Your task to perform on an android device: Open Youtube and go to "Your channel" Image 0: 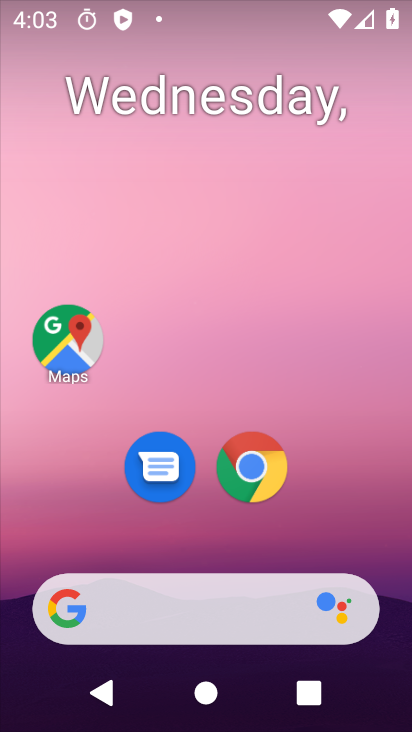
Step 0: drag from (385, 474) to (249, 5)
Your task to perform on an android device: Open Youtube and go to "Your channel" Image 1: 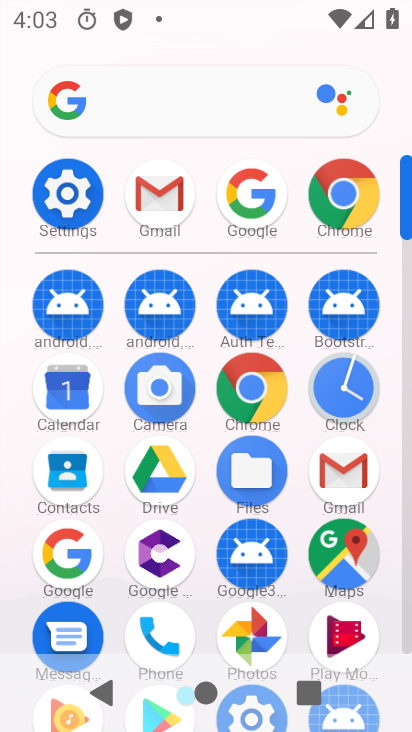
Step 1: drag from (283, 637) to (215, 204)
Your task to perform on an android device: Open Youtube and go to "Your channel" Image 2: 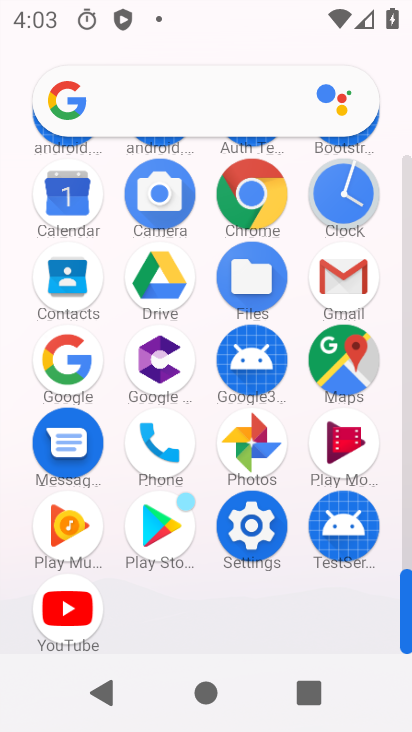
Step 2: click (70, 606)
Your task to perform on an android device: Open Youtube and go to "Your channel" Image 3: 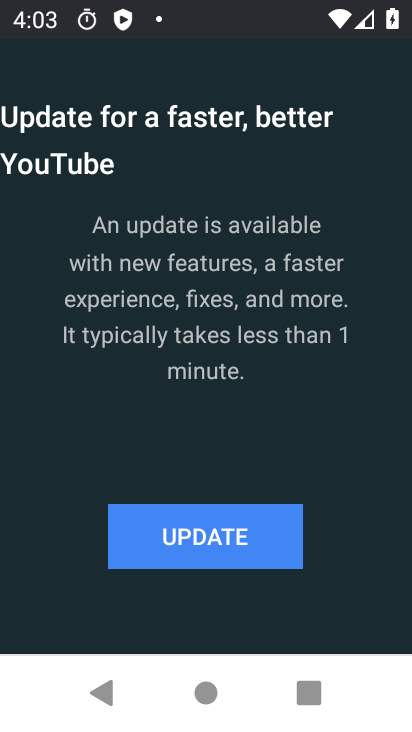
Step 3: click (262, 540)
Your task to perform on an android device: Open Youtube and go to "Your channel" Image 4: 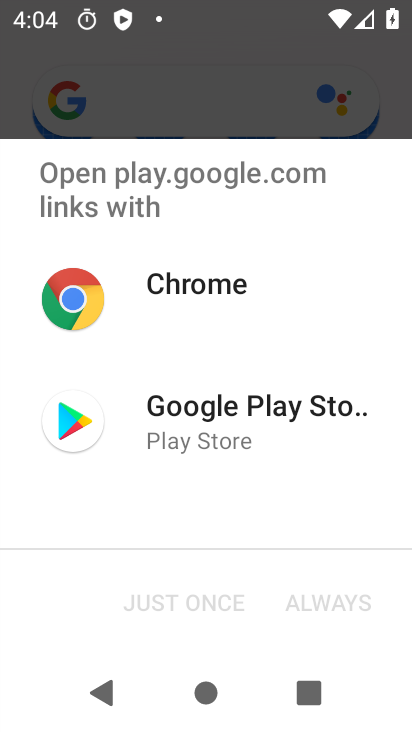
Step 4: click (147, 405)
Your task to perform on an android device: Open Youtube and go to "Your channel" Image 5: 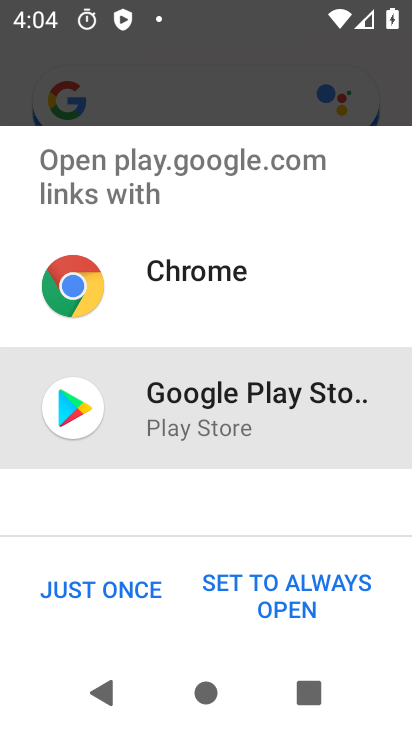
Step 5: click (89, 598)
Your task to perform on an android device: Open Youtube and go to "Your channel" Image 6: 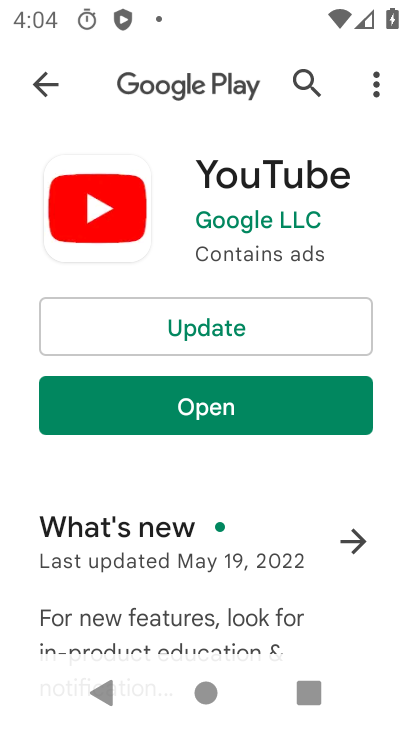
Step 6: click (284, 329)
Your task to perform on an android device: Open Youtube and go to "Your channel" Image 7: 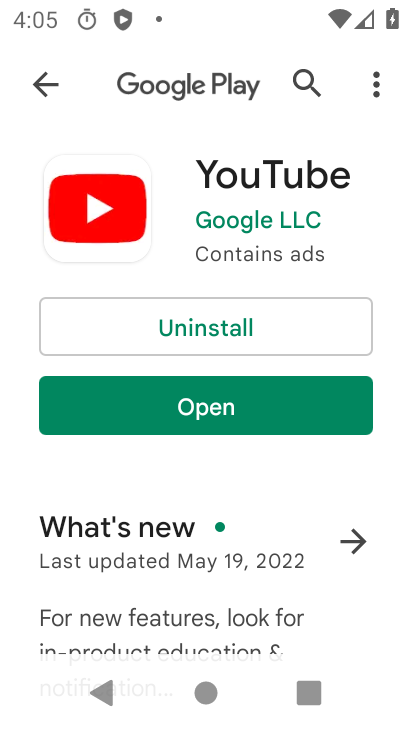
Step 7: click (206, 406)
Your task to perform on an android device: Open Youtube and go to "Your channel" Image 8: 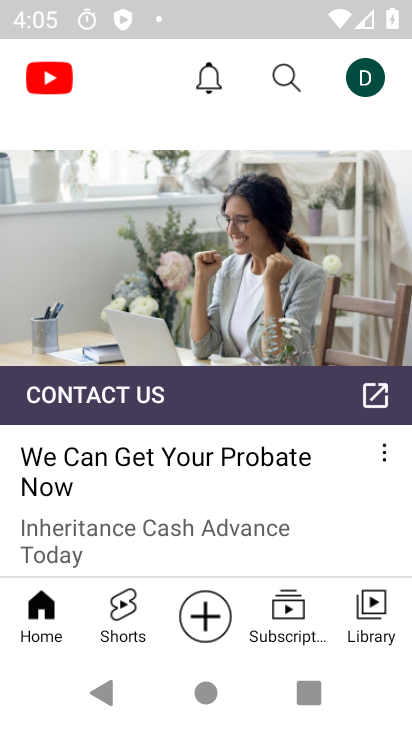
Step 8: click (358, 76)
Your task to perform on an android device: Open Youtube and go to "Your channel" Image 9: 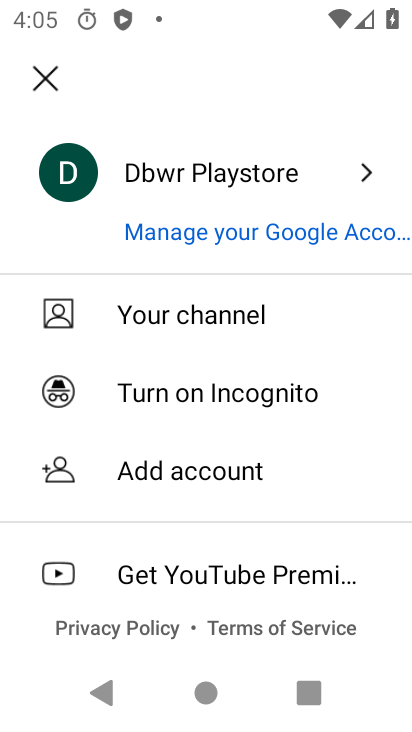
Step 9: click (185, 326)
Your task to perform on an android device: Open Youtube and go to "Your channel" Image 10: 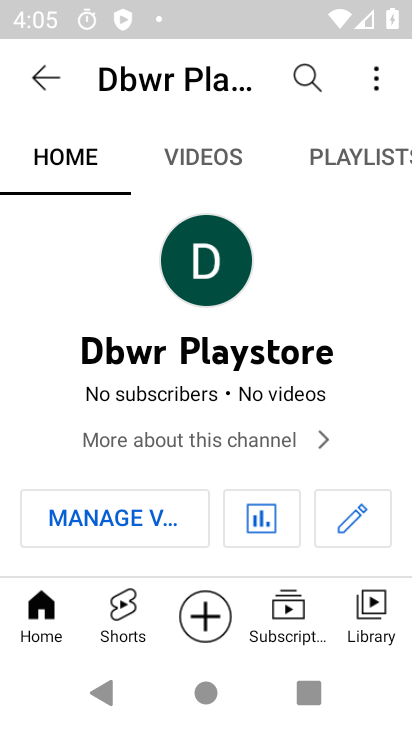
Step 10: task complete